Your task to perform on an android device: Go to network settings Image 0: 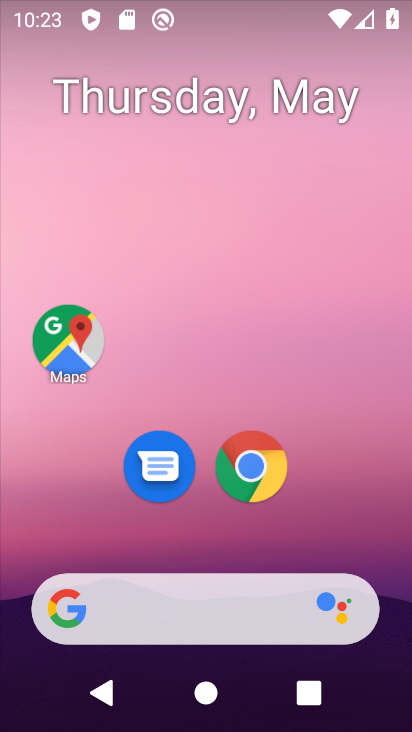
Step 0: drag from (323, 501) to (333, 0)
Your task to perform on an android device: Go to network settings Image 1: 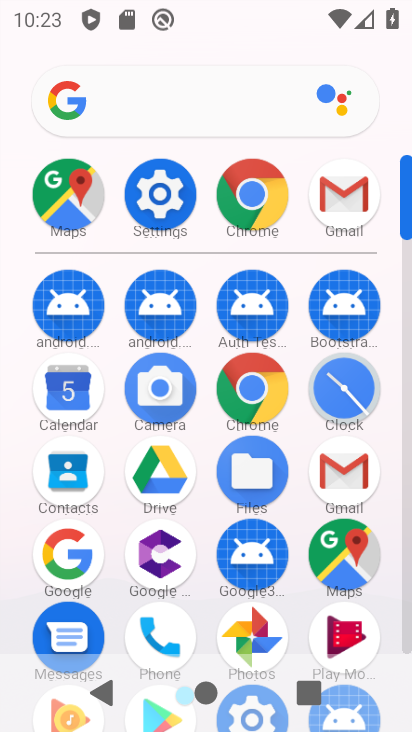
Step 1: click (151, 219)
Your task to perform on an android device: Go to network settings Image 2: 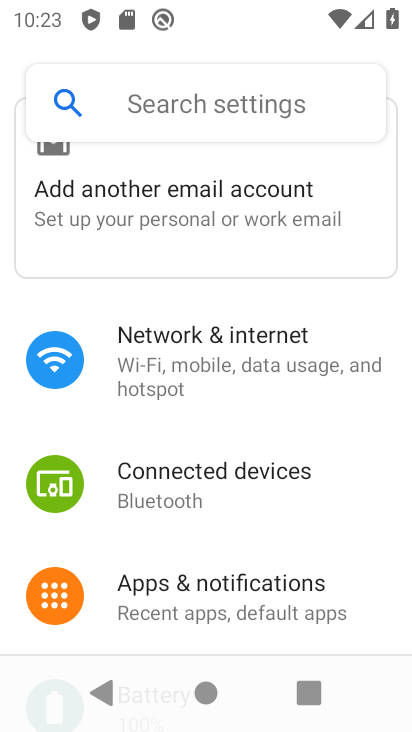
Step 2: click (197, 347)
Your task to perform on an android device: Go to network settings Image 3: 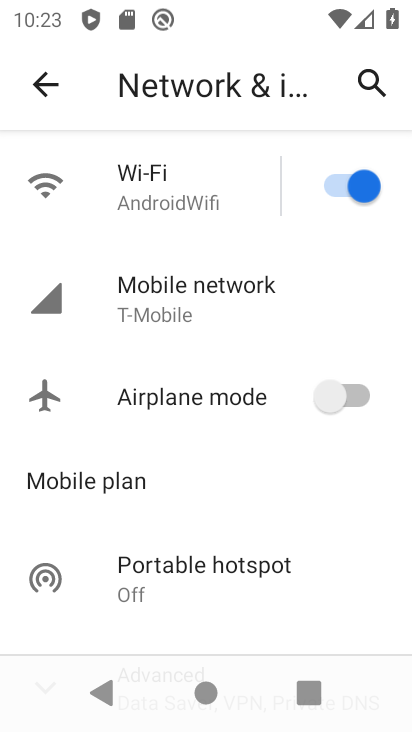
Step 3: task complete